Your task to perform on an android device: Open Chrome and go to settings Image 0: 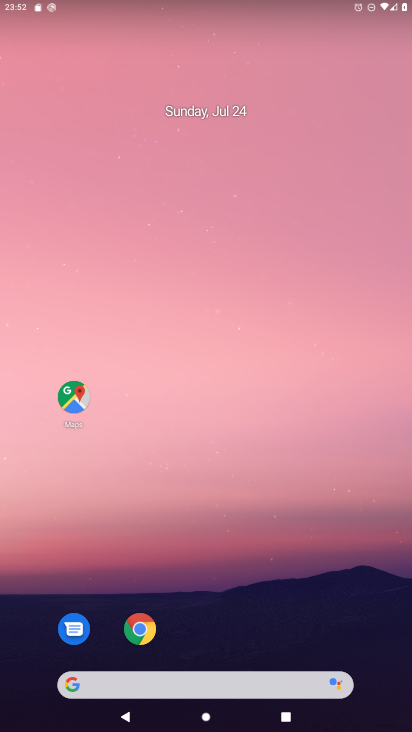
Step 0: click (206, 314)
Your task to perform on an android device: Open Chrome and go to settings Image 1: 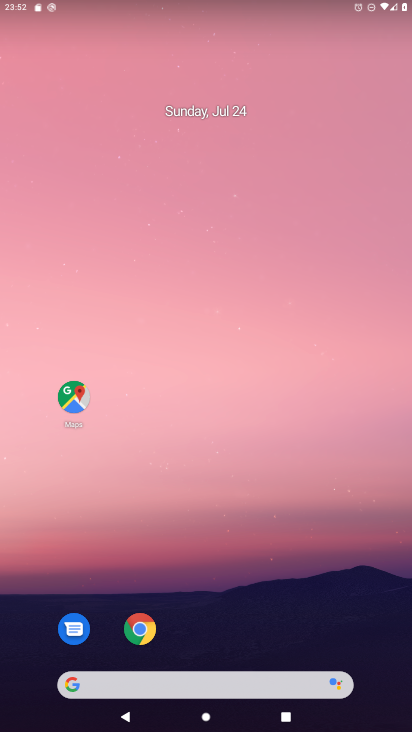
Step 1: drag from (180, 541) to (180, 339)
Your task to perform on an android device: Open Chrome and go to settings Image 2: 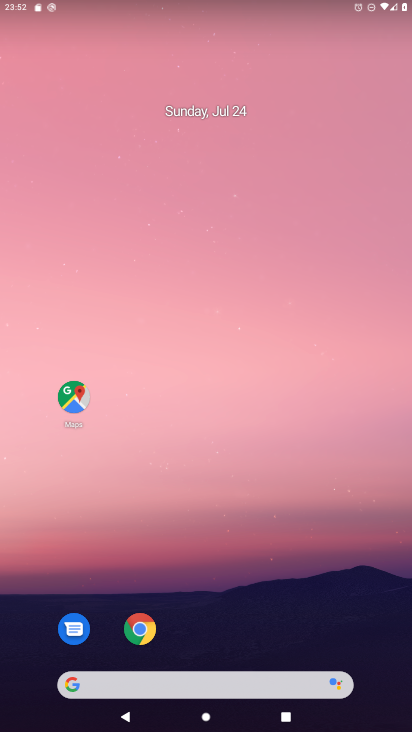
Step 2: click (147, 624)
Your task to perform on an android device: Open Chrome and go to settings Image 3: 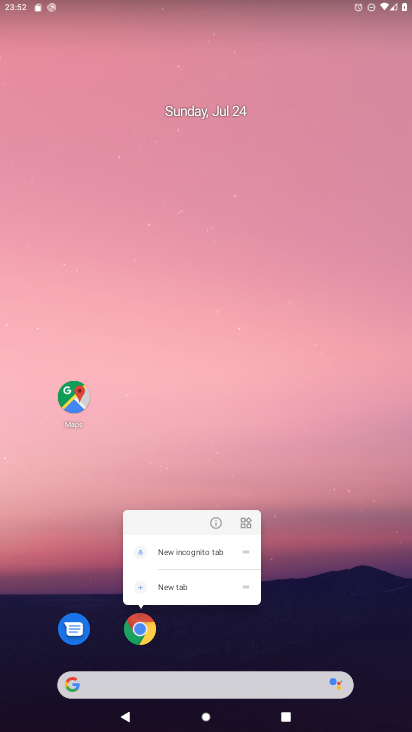
Step 3: click (213, 521)
Your task to perform on an android device: Open Chrome and go to settings Image 4: 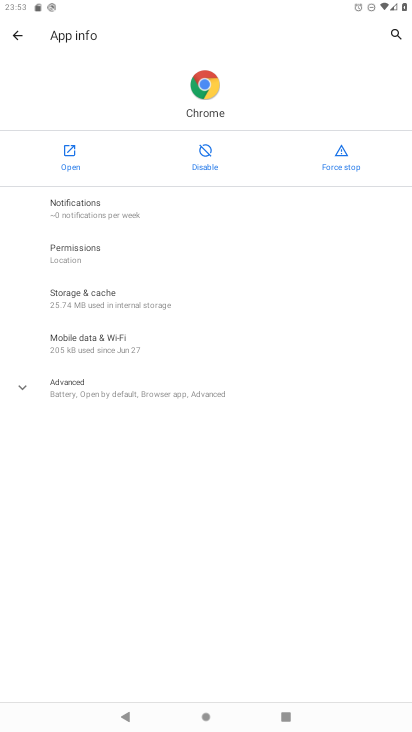
Step 4: click (76, 162)
Your task to perform on an android device: Open Chrome and go to settings Image 5: 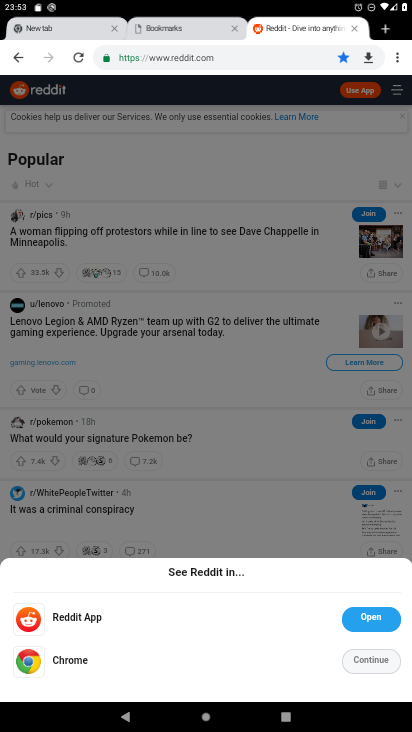
Step 5: task complete